Your task to perform on an android device: See recent photos Image 0: 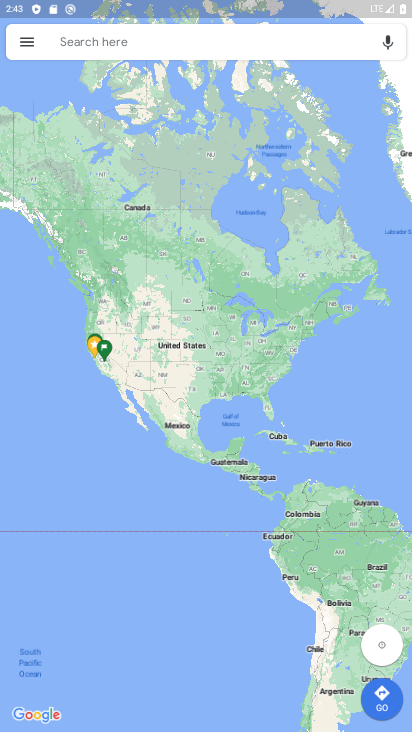
Step 0: press home button
Your task to perform on an android device: See recent photos Image 1: 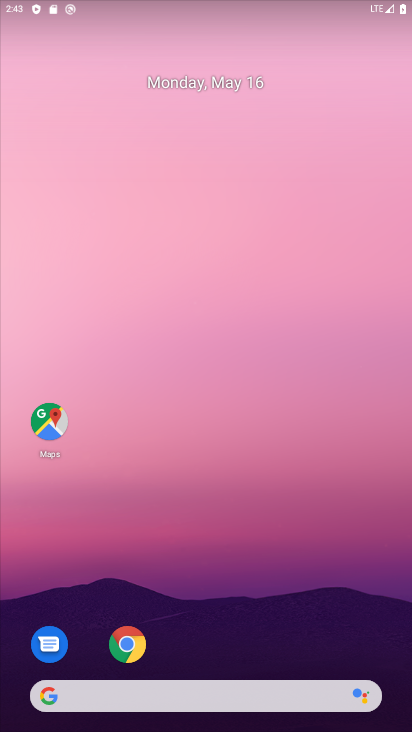
Step 1: drag from (163, 666) to (296, 138)
Your task to perform on an android device: See recent photos Image 2: 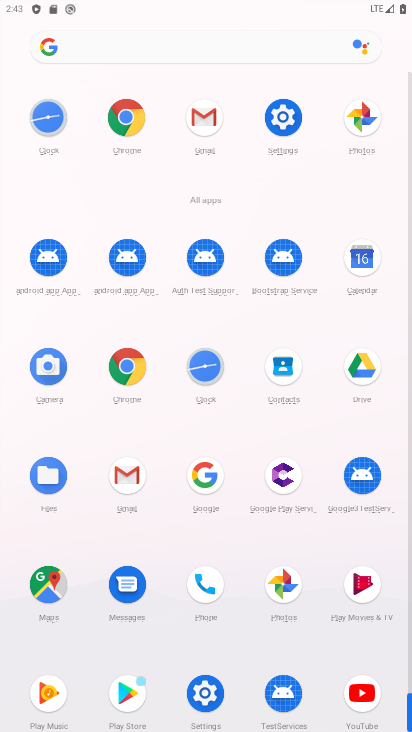
Step 2: click (295, 598)
Your task to perform on an android device: See recent photos Image 3: 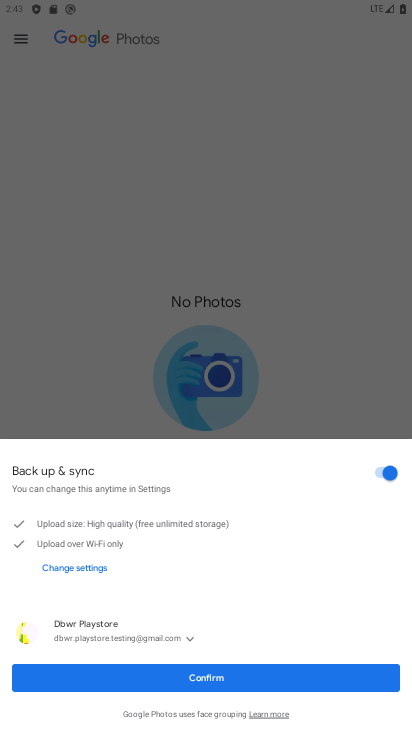
Step 3: click (247, 678)
Your task to perform on an android device: See recent photos Image 4: 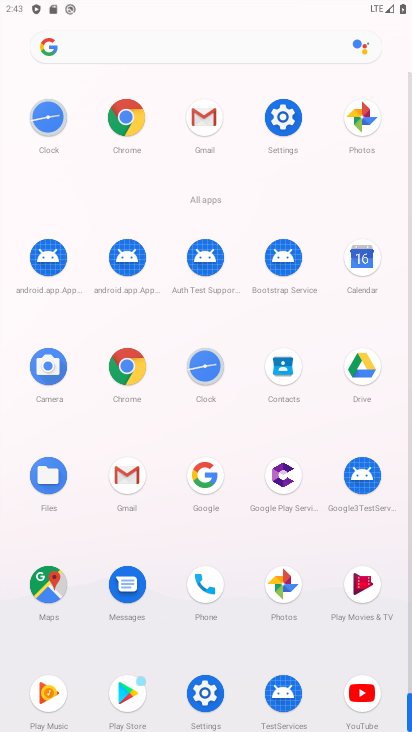
Step 4: click (293, 596)
Your task to perform on an android device: See recent photos Image 5: 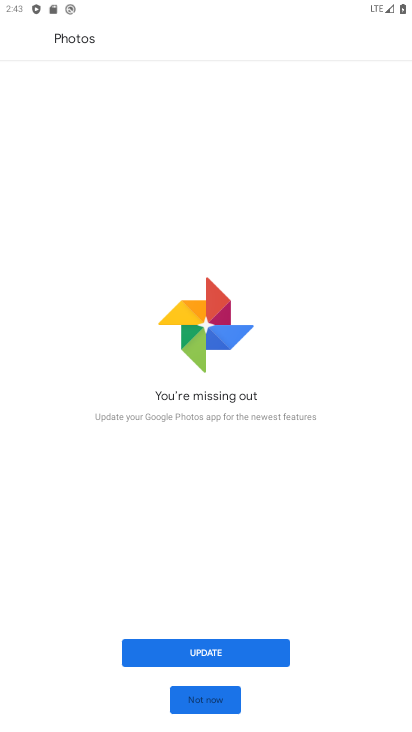
Step 5: click (209, 652)
Your task to perform on an android device: See recent photos Image 6: 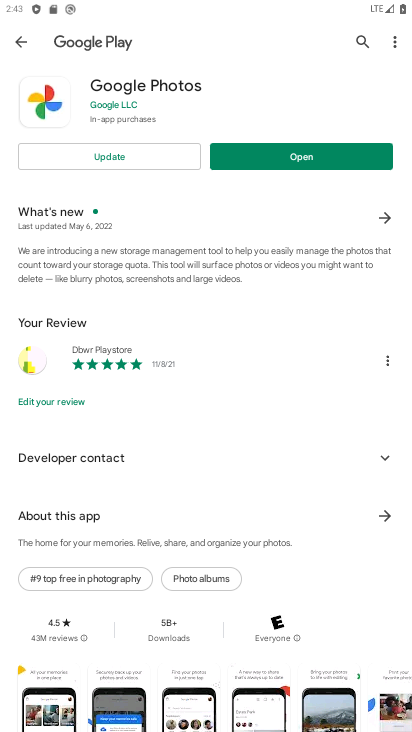
Step 6: click (151, 160)
Your task to perform on an android device: See recent photos Image 7: 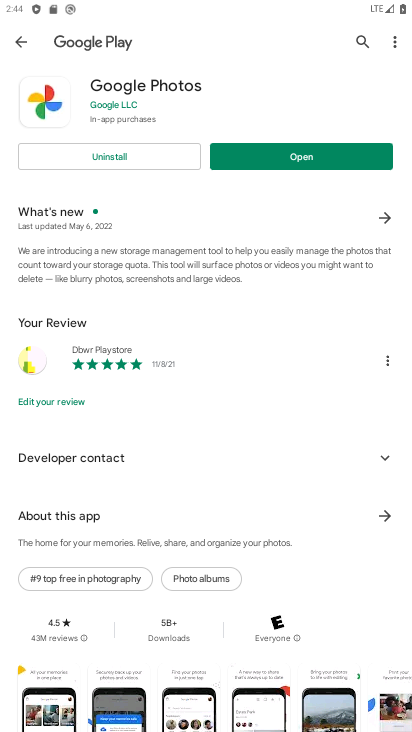
Step 7: click (305, 167)
Your task to perform on an android device: See recent photos Image 8: 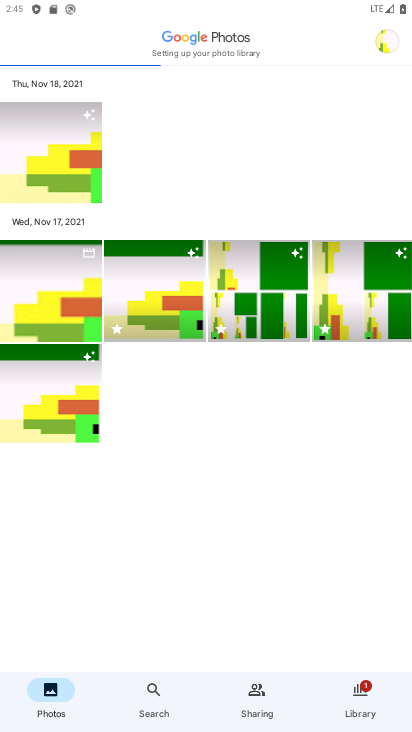
Step 8: task complete